Your task to perform on an android device: Is it going to rain this weekend? Image 0: 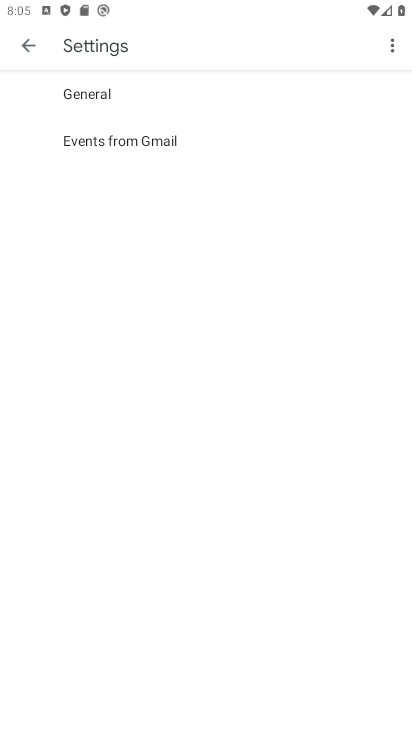
Step 0: press home button
Your task to perform on an android device: Is it going to rain this weekend? Image 1: 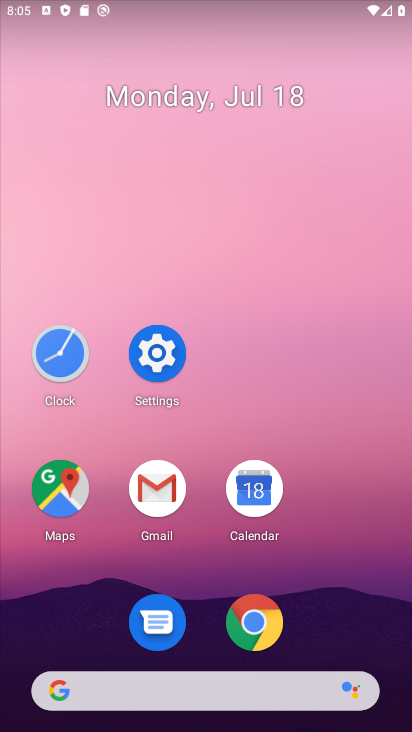
Step 1: task complete